Your task to perform on an android device: Add energizer triple a to the cart on target.com, then select checkout. Image 0: 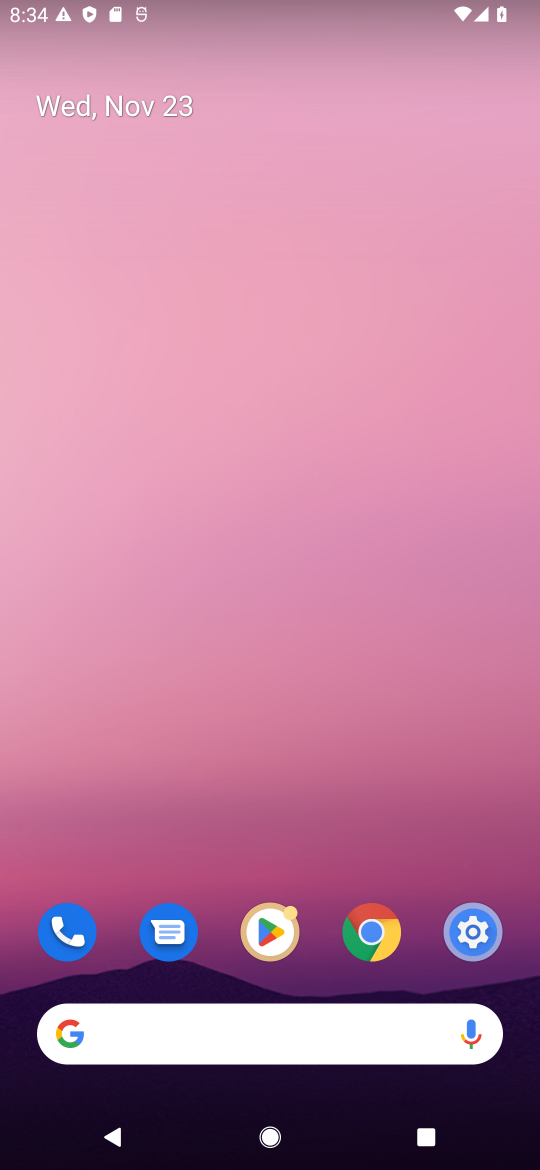
Step 0: click (381, 922)
Your task to perform on an android device: Add energizer triple a to the cart on target.com, then select checkout. Image 1: 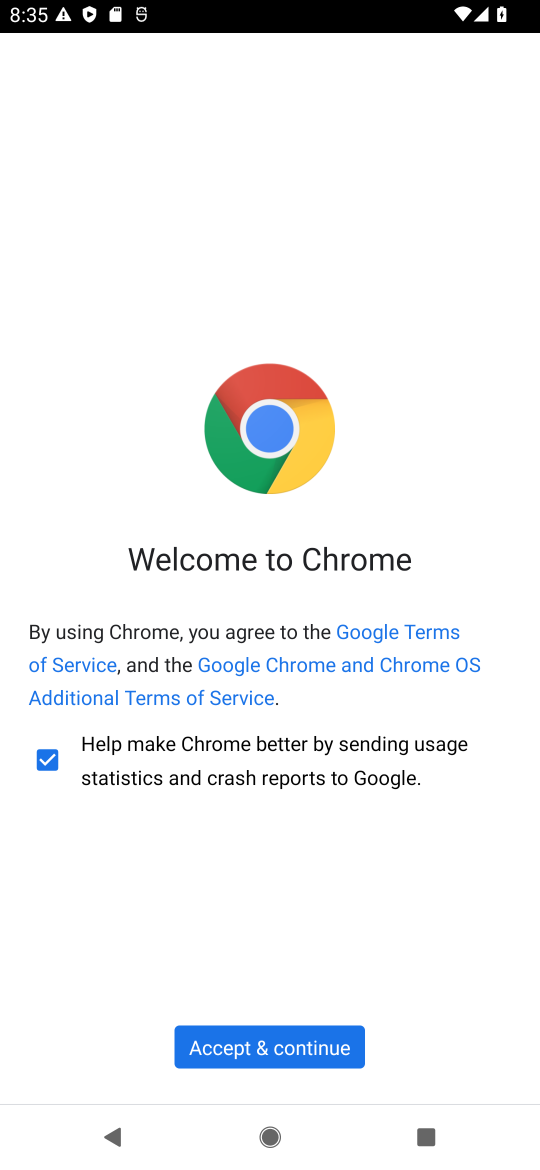
Step 1: click (268, 1048)
Your task to perform on an android device: Add energizer triple a to the cart on target.com, then select checkout. Image 2: 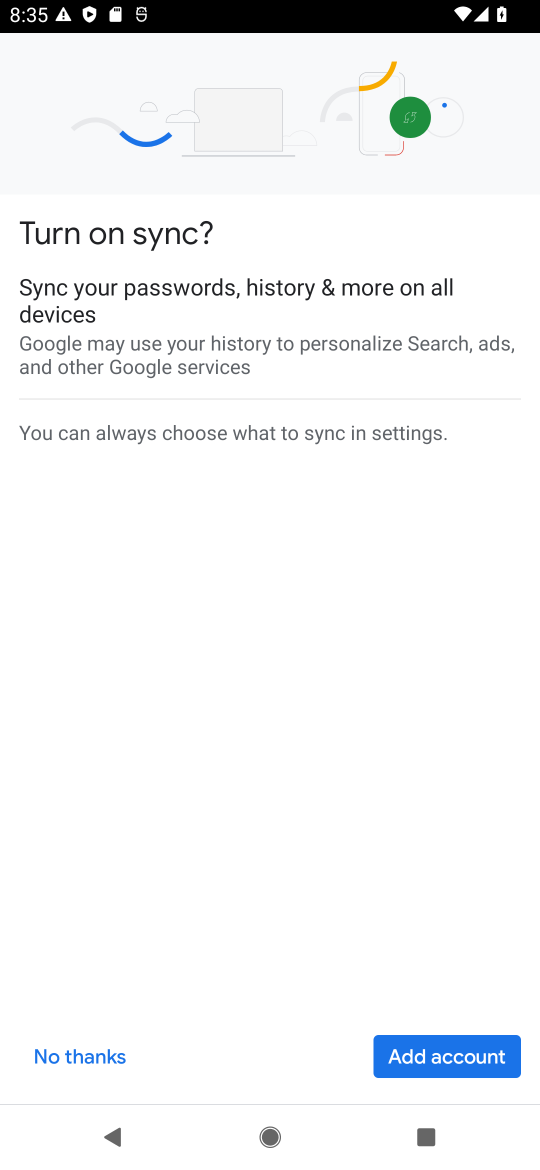
Step 2: click (100, 1061)
Your task to perform on an android device: Add energizer triple a to the cart on target.com, then select checkout. Image 3: 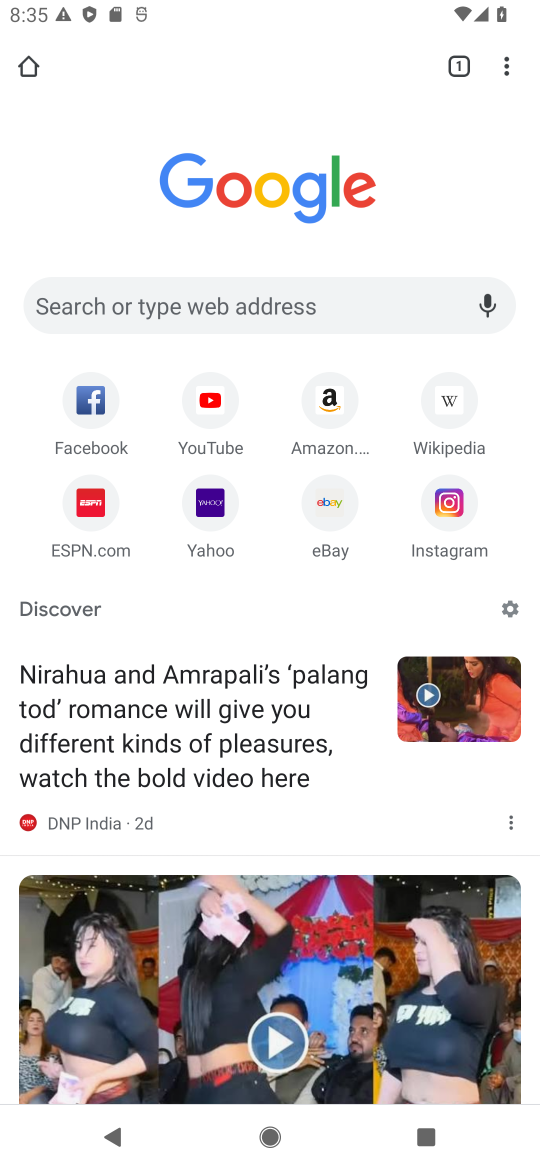
Step 3: click (307, 310)
Your task to perform on an android device: Add energizer triple a to the cart on target.com, then select checkout. Image 4: 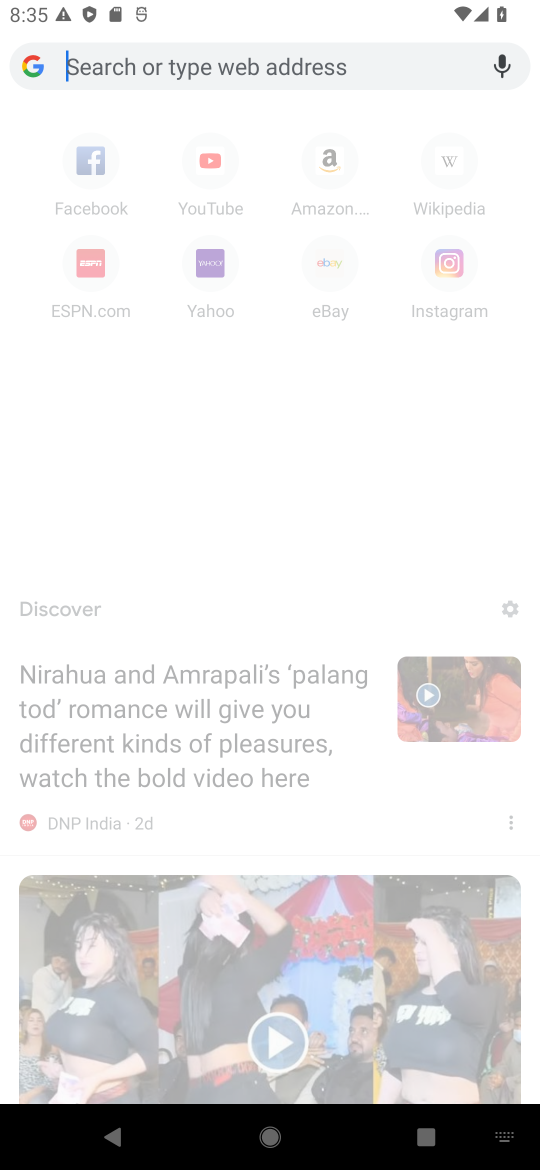
Step 4: type "target.com"
Your task to perform on an android device: Add energizer triple a to the cart on target.com, then select checkout. Image 5: 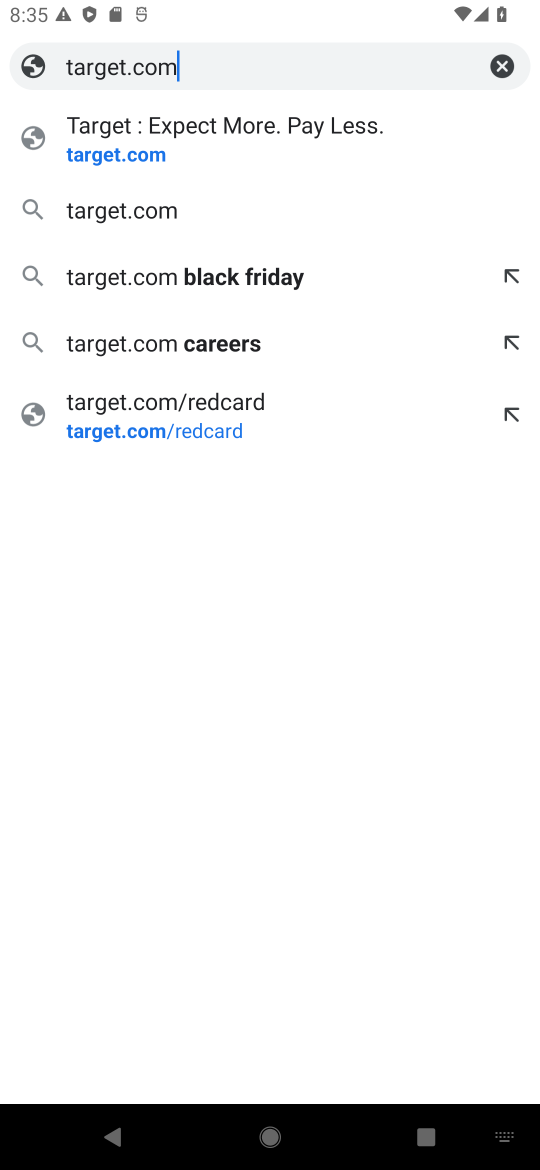
Step 5: click (243, 151)
Your task to perform on an android device: Add energizer triple a to the cart on target.com, then select checkout. Image 6: 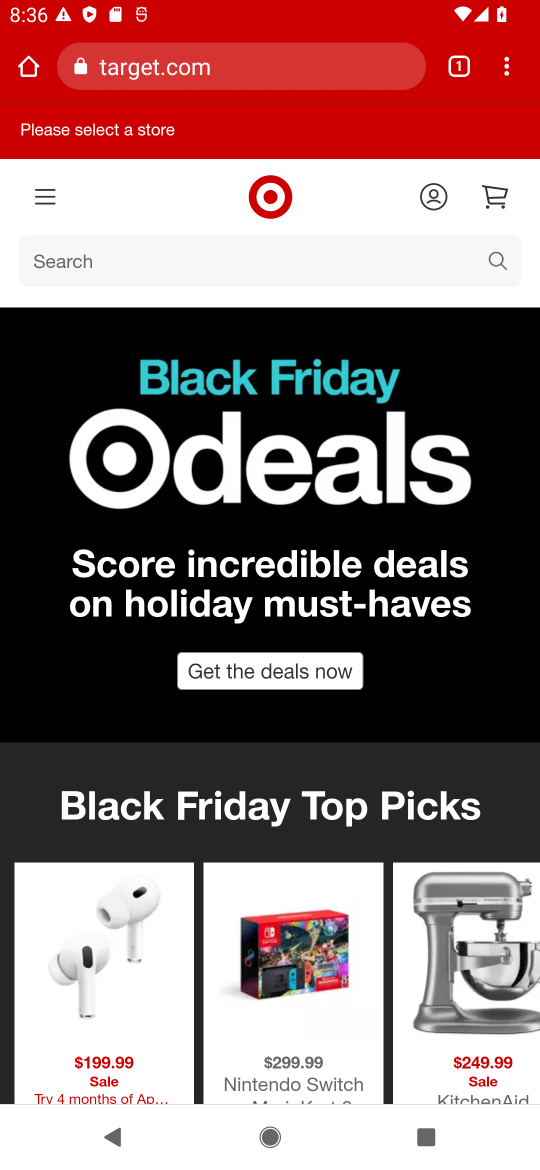
Step 6: click (151, 246)
Your task to perform on an android device: Add energizer triple a to the cart on target.com, then select checkout. Image 7: 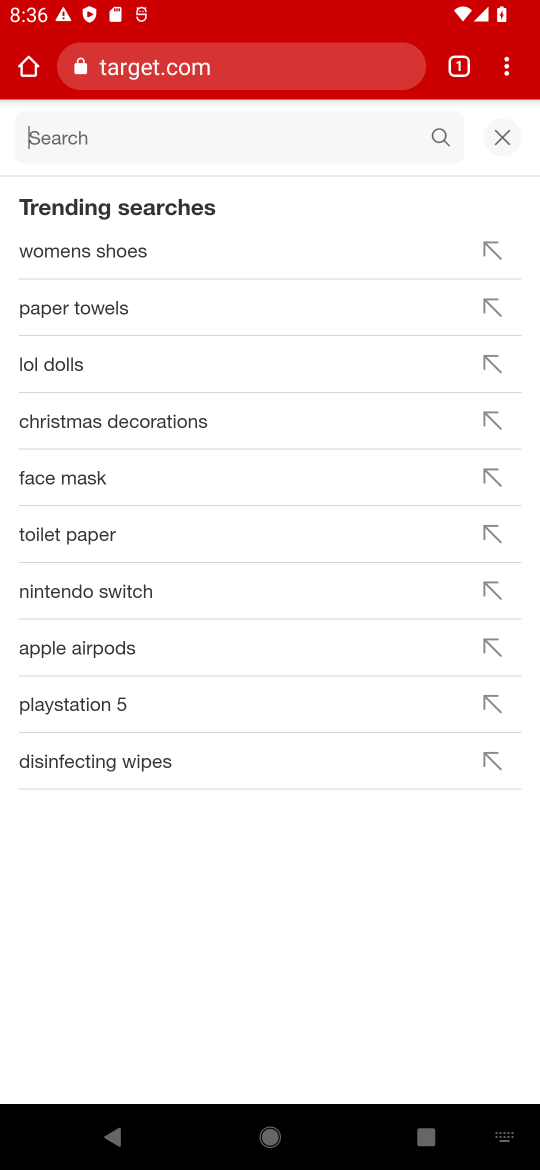
Step 7: type "energizer aaa"
Your task to perform on an android device: Add energizer triple a to the cart on target.com, then select checkout. Image 8: 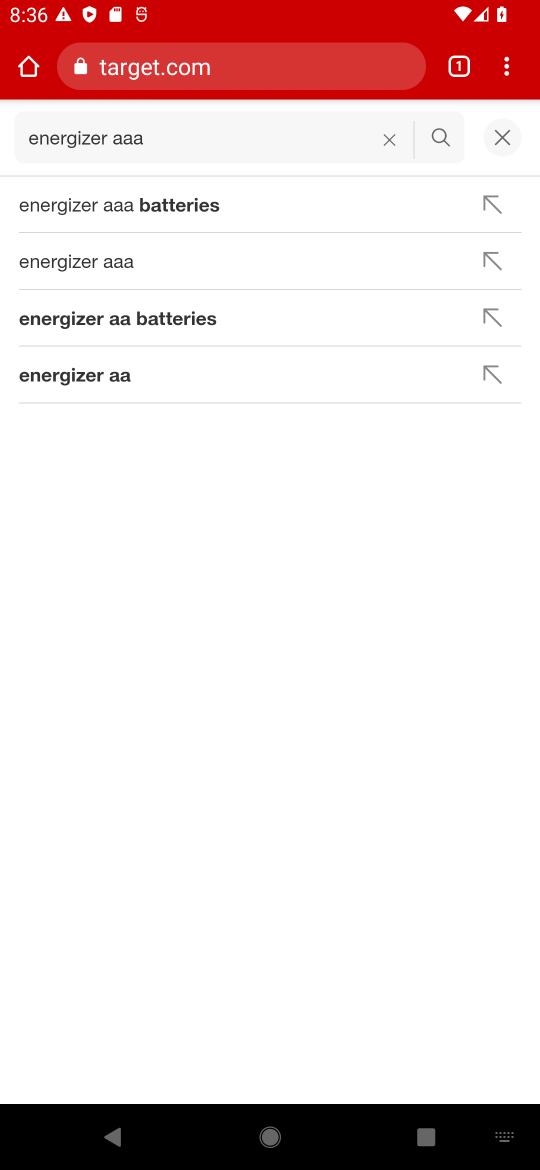
Step 8: press enter
Your task to perform on an android device: Add energizer triple a to the cart on target.com, then select checkout. Image 9: 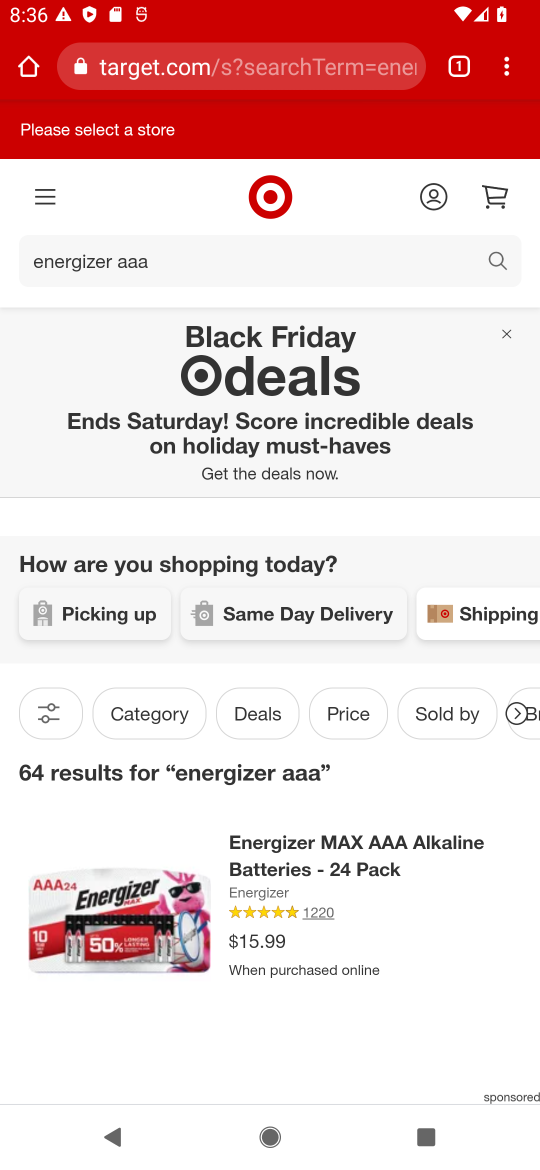
Step 9: drag from (321, 872) to (264, 525)
Your task to perform on an android device: Add energizer triple a to the cart on target.com, then select checkout. Image 10: 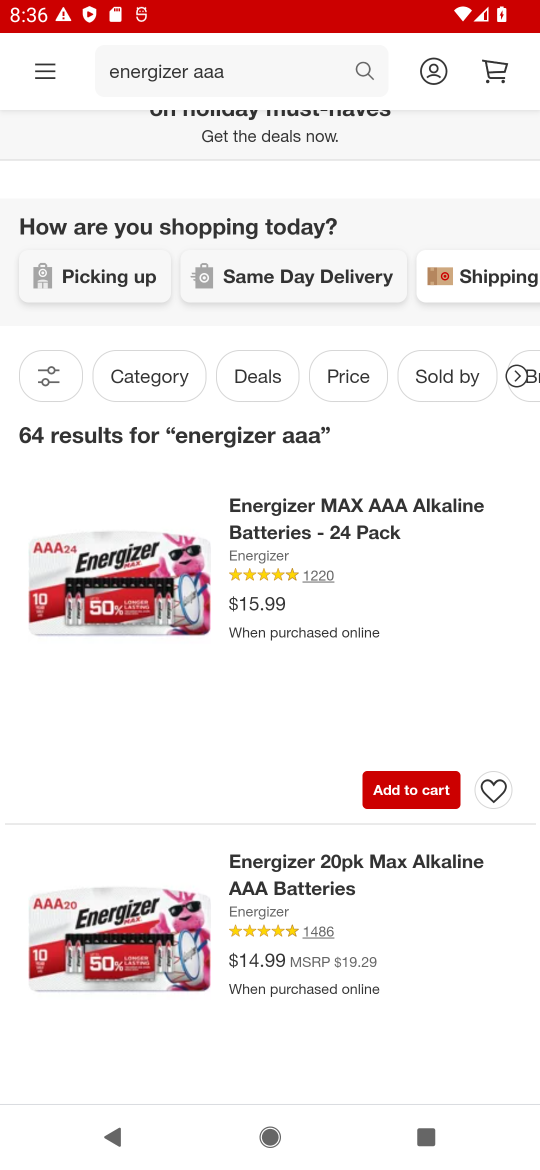
Step 10: click (402, 797)
Your task to perform on an android device: Add energizer triple a to the cart on target.com, then select checkout. Image 11: 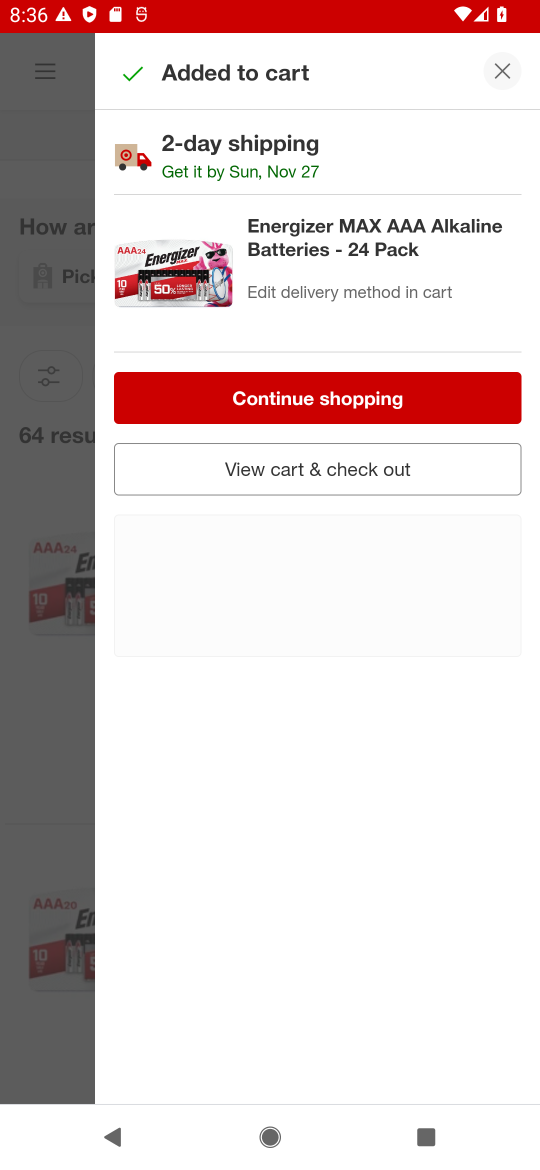
Step 11: click (268, 480)
Your task to perform on an android device: Add energizer triple a to the cart on target.com, then select checkout. Image 12: 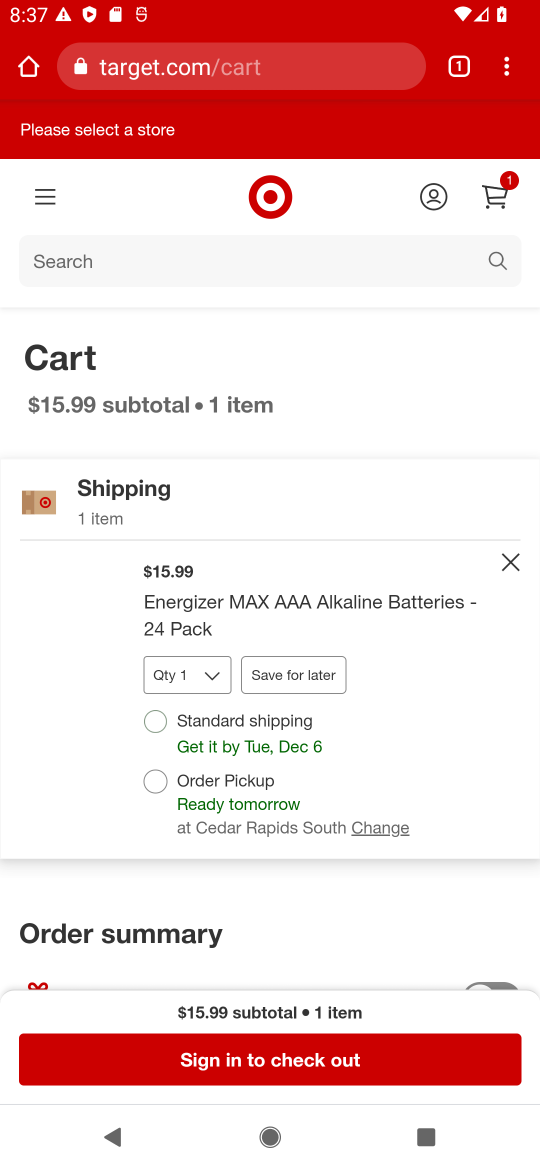
Step 12: drag from (358, 888) to (281, 379)
Your task to perform on an android device: Add energizer triple a to the cart on target.com, then select checkout. Image 13: 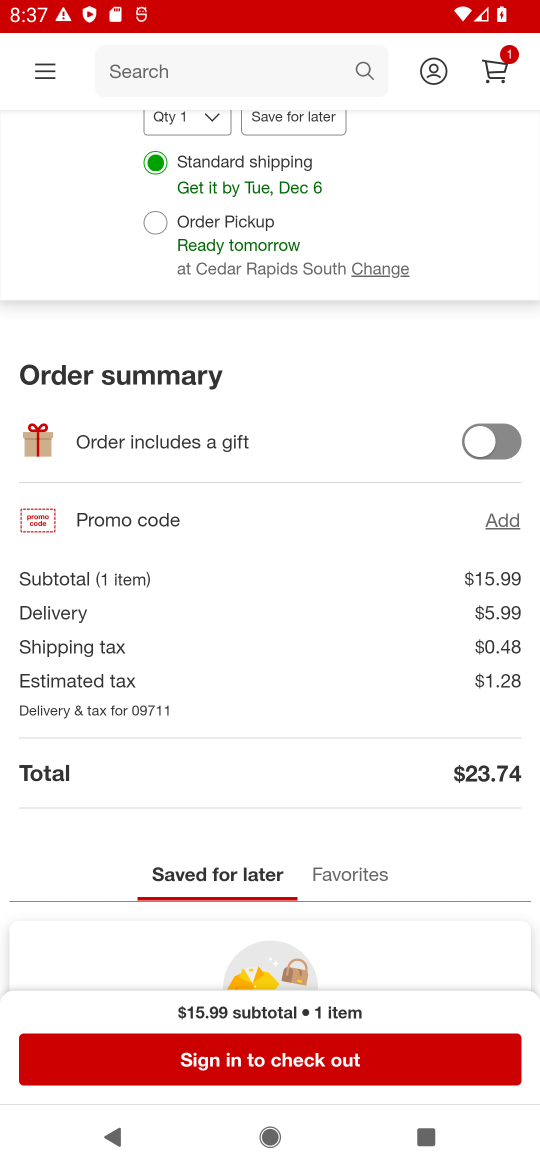
Step 13: click (289, 1055)
Your task to perform on an android device: Add energizer triple a to the cart on target.com, then select checkout. Image 14: 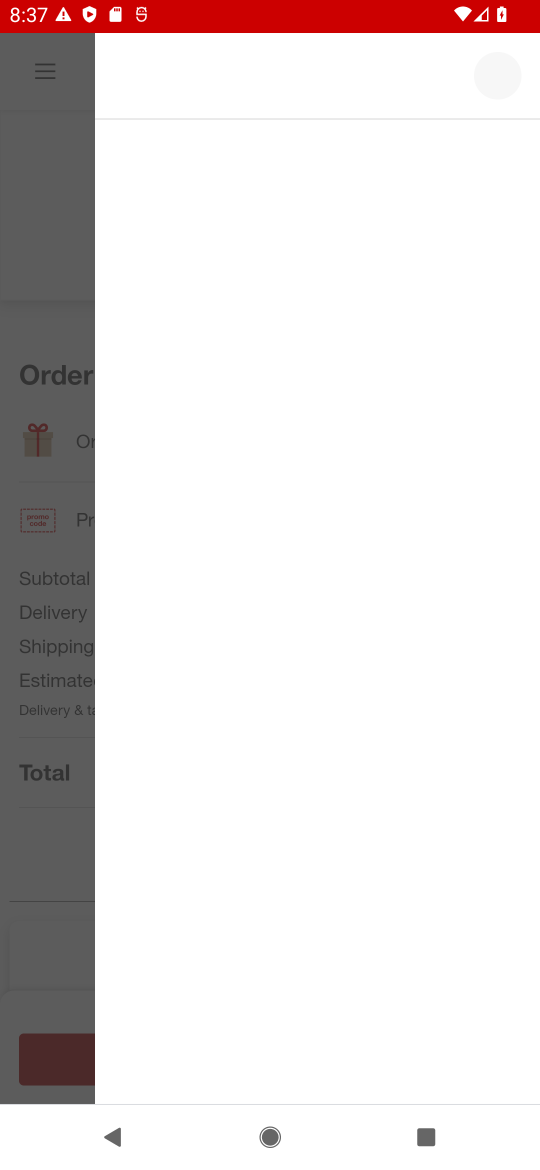
Step 14: task complete